Your task to perform on an android device: change the clock display to show seconds Image 0: 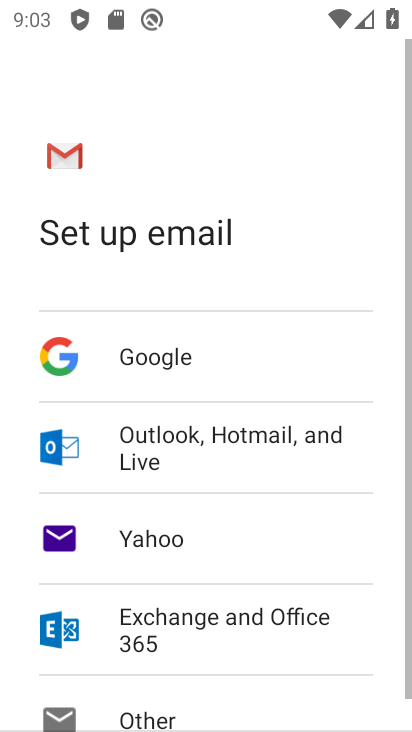
Step 0: press home button
Your task to perform on an android device: change the clock display to show seconds Image 1: 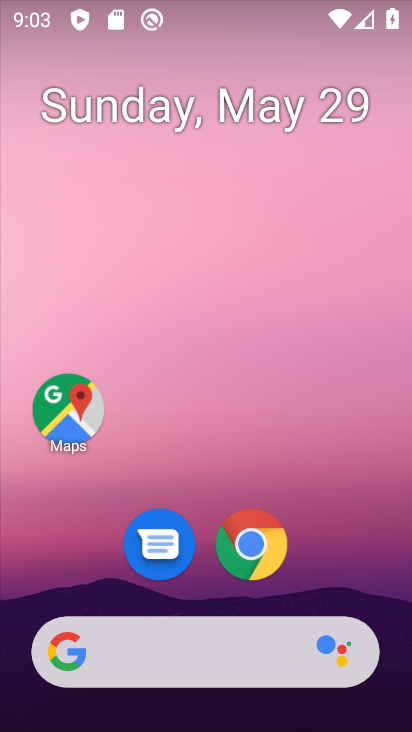
Step 1: drag from (311, 546) to (327, 85)
Your task to perform on an android device: change the clock display to show seconds Image 2: 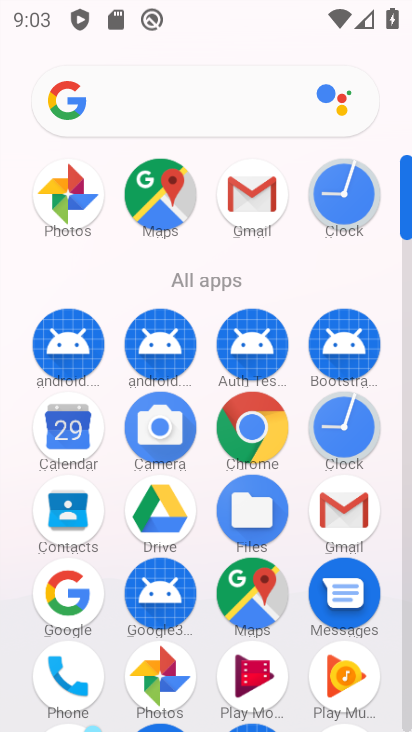
Step 2: click (345, 439)
Your task to perform on an android device: change the clock display to show seconds Image 3: 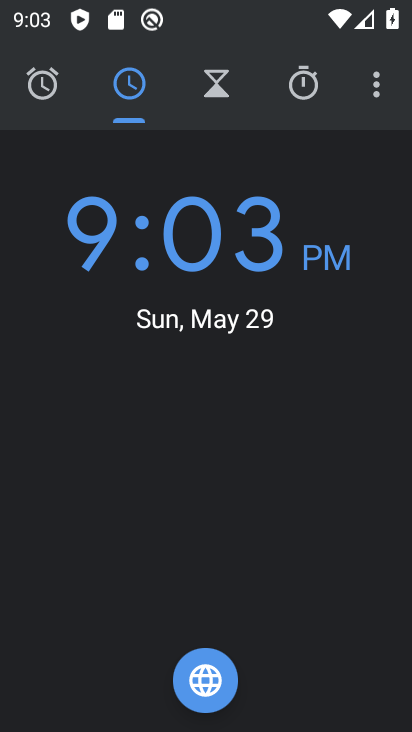
Step 3: click (378, 85)
Your task to perform on an android device: change the clock display to show seconds Image 4: 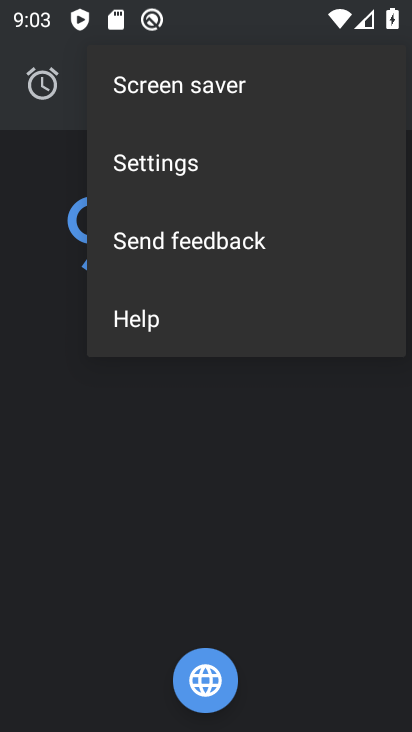
Step 4: click (174, 177)
Your task to perform on an android device: change the clock display to show seconds Image 5: 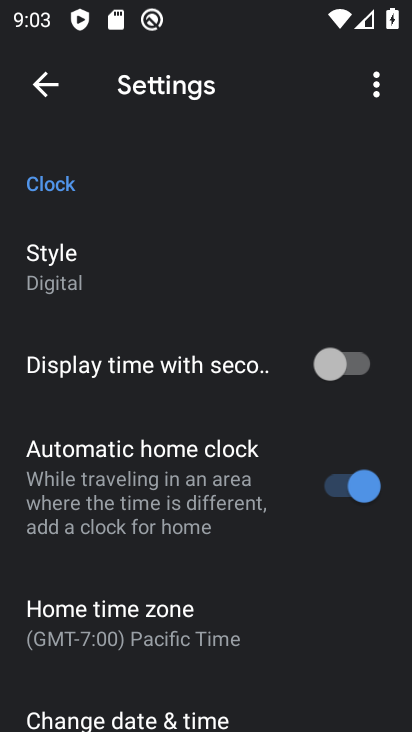
Step 5: click (331, 369)
Your task to perform on an android device: change the clock display to show seconds Image 6: 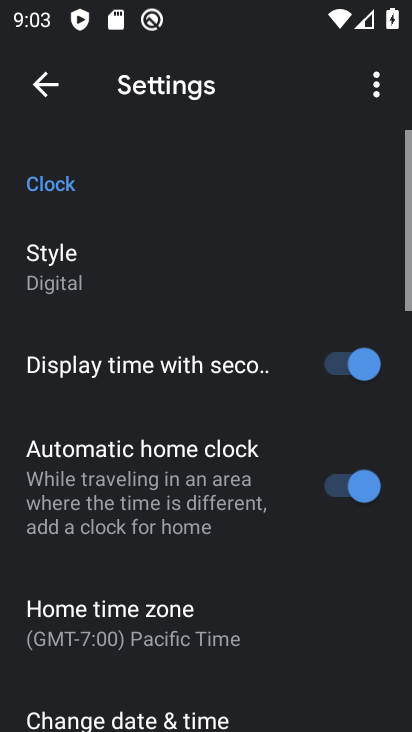
Step 6: task complete